Your task to perform on an android device: install app "Duolingo: language lessons" Image 0: 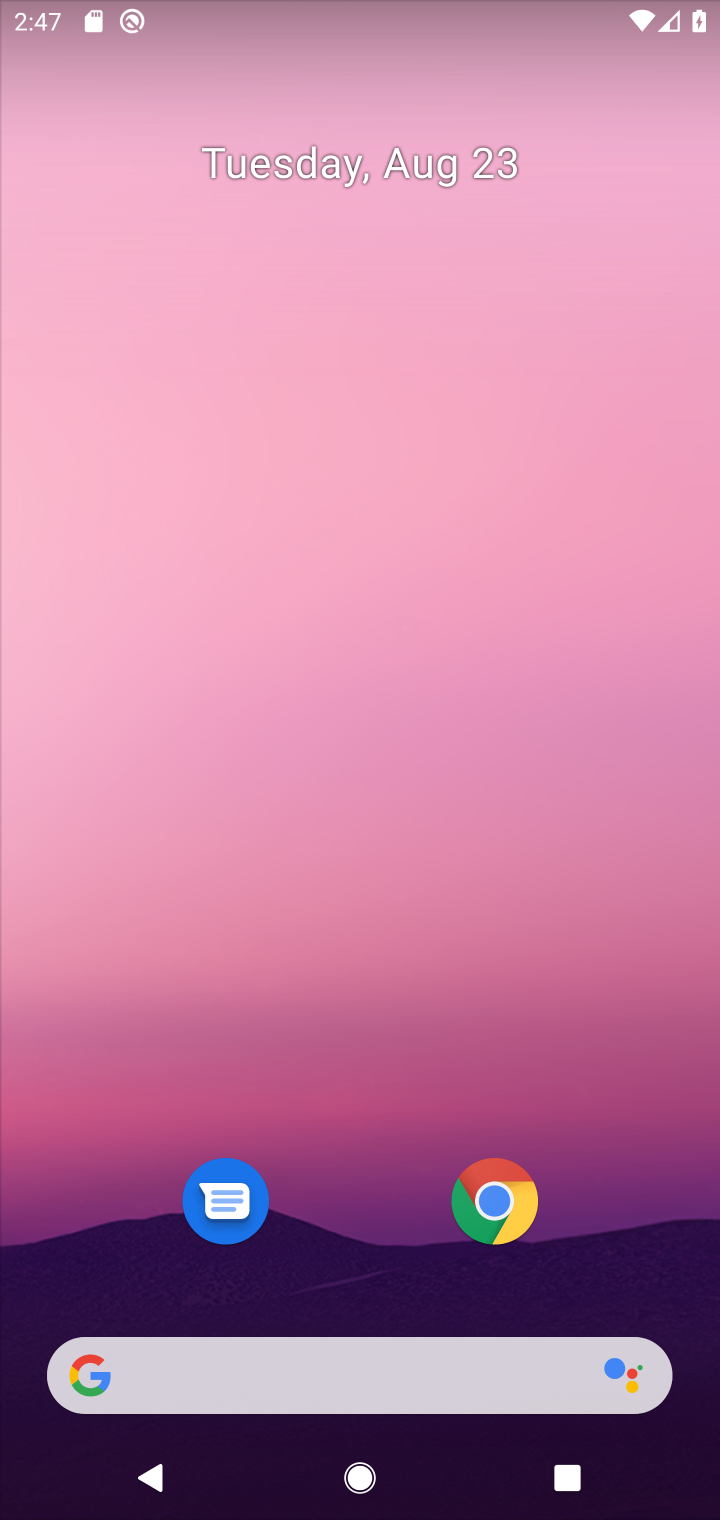
Step 0: drag from (667, 1307) to (490, 287)
Your task to perform on an android device: install app "Duolingo: language lessons" Image 1: 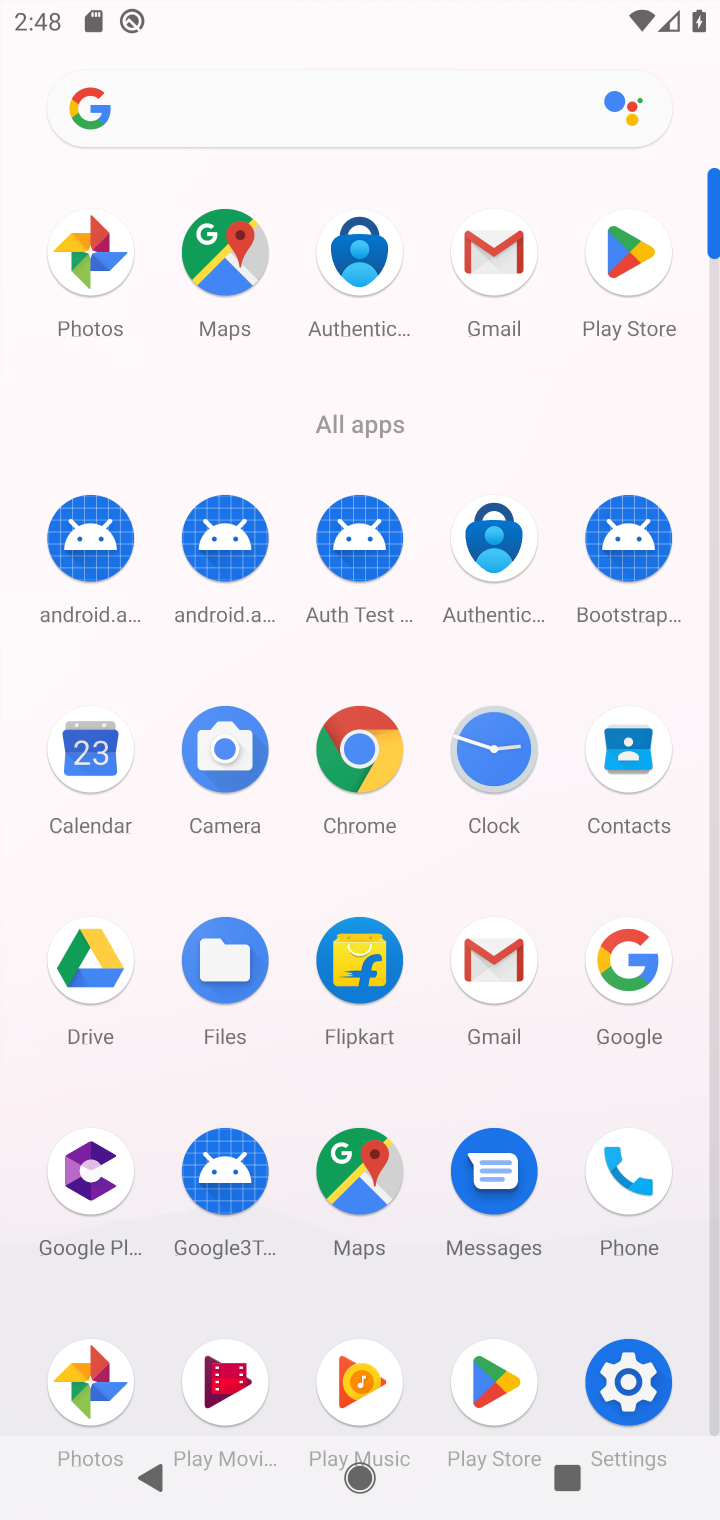
Step 1: click (493, 1377)
Your task to perform on an android device: install app "Duolingo: language lessons" Image 2: 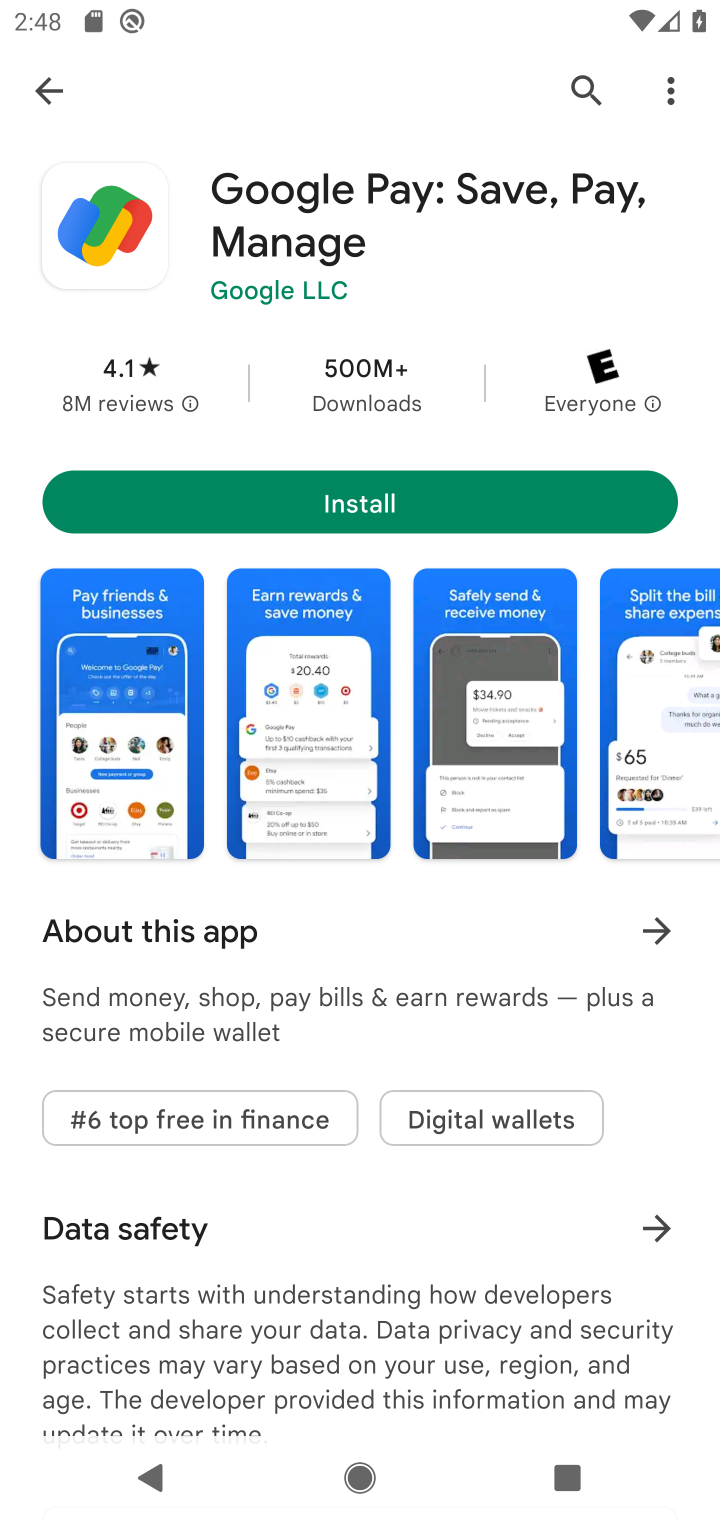
Step 2: click (580, 77)
Your task to perform on an android device: install app "Duolingo: language lessons" Image 3: 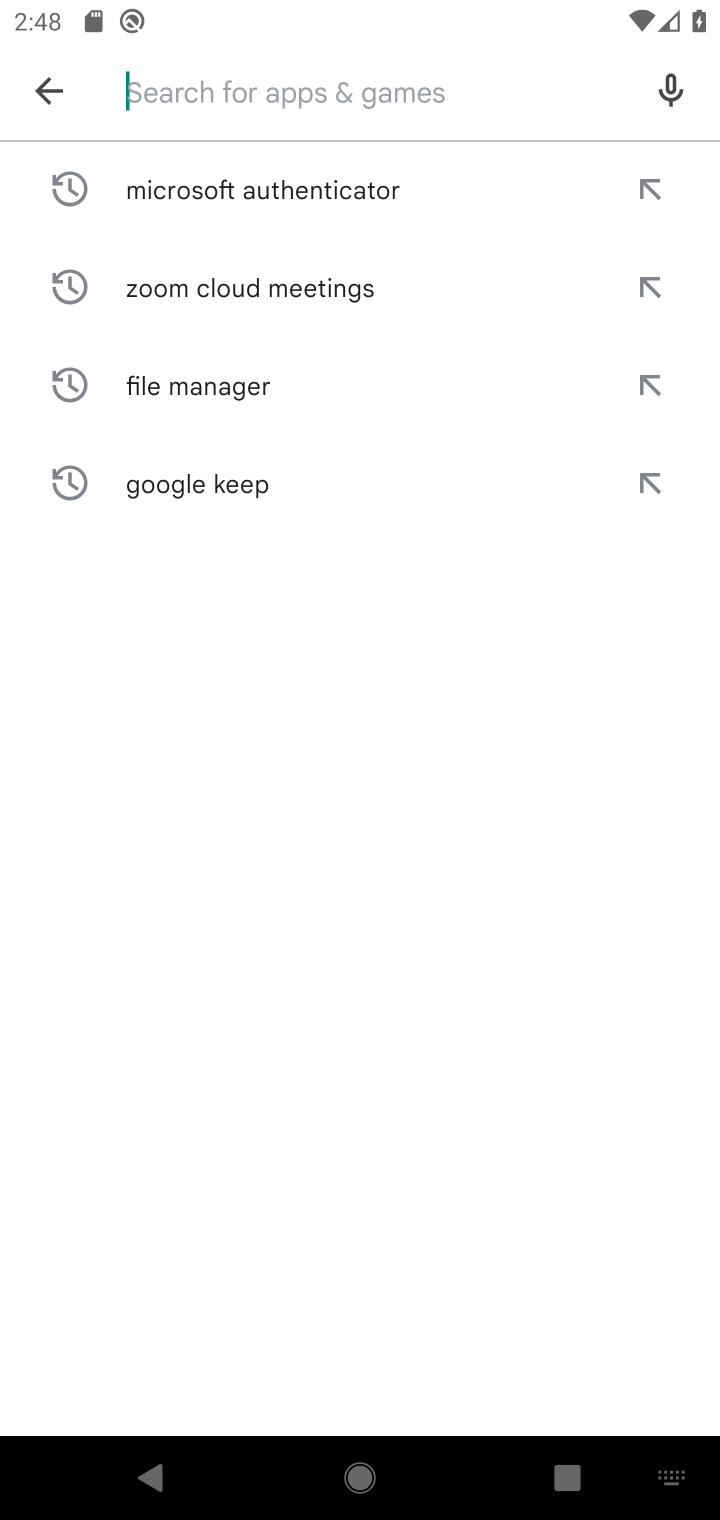
Step 3: type "Duolingo: language lessons"
Your task to perform on an android device: install app "Duolingo: language lessons" Image 4: 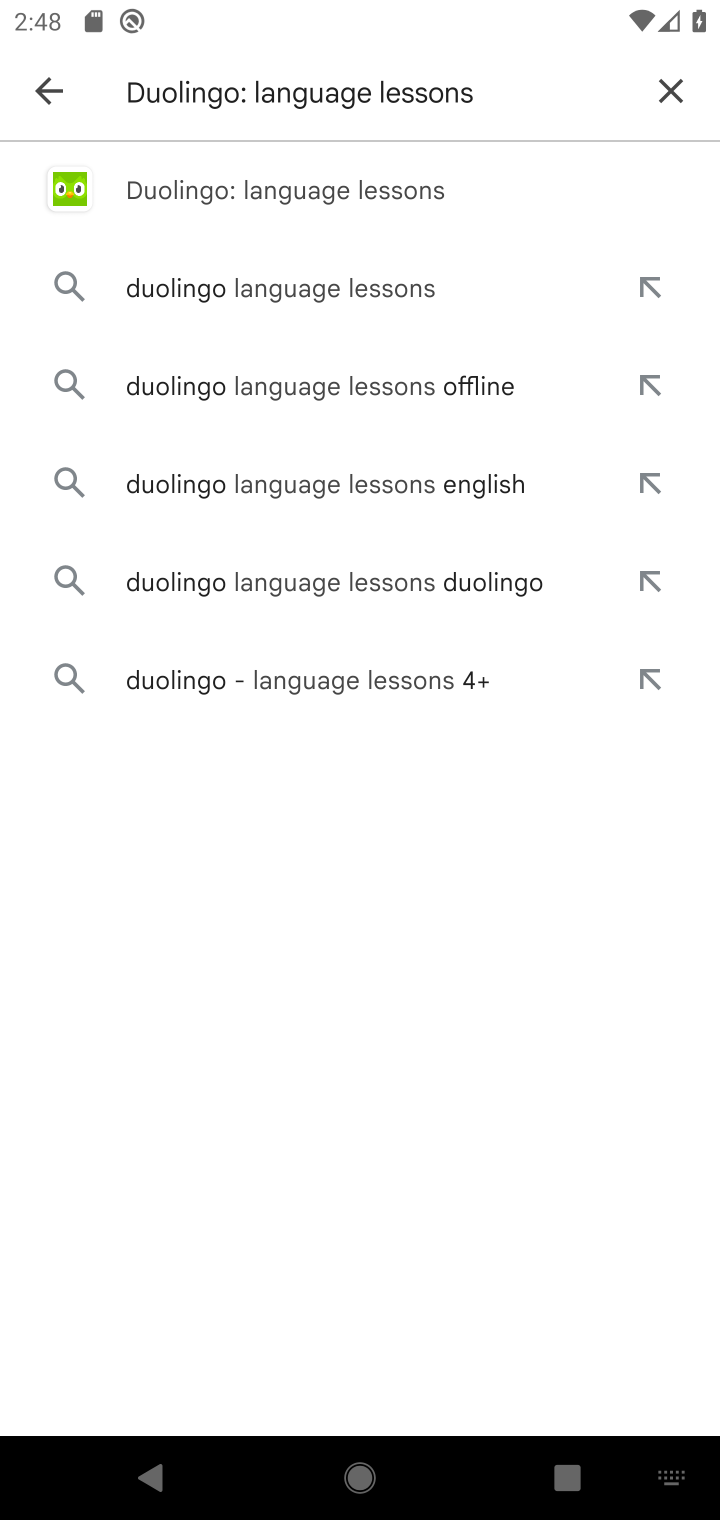
Step 4: click (275, 179)
Your task to perform on an android device: install app "Duolingo: language lessons" Image 5: 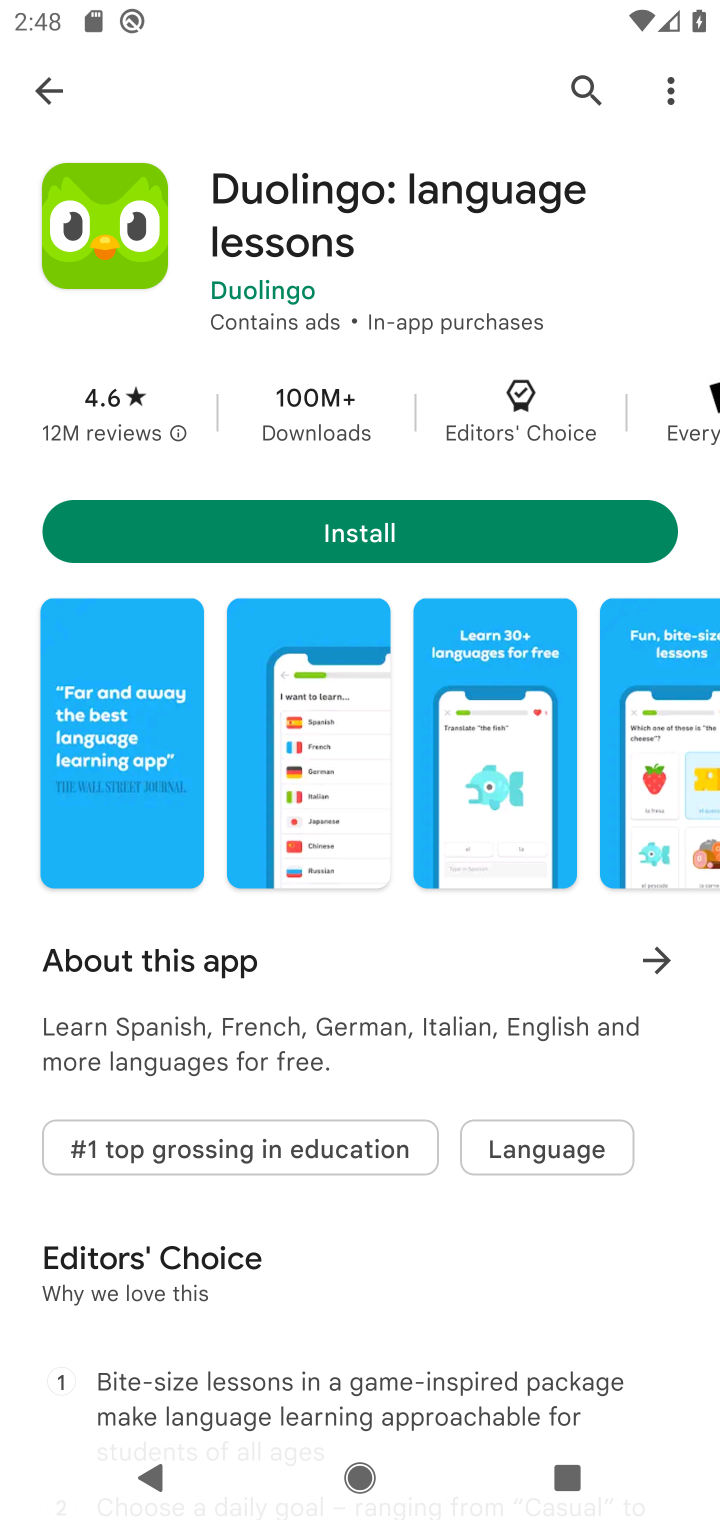
Step 5: click (352, 537)
Your task to perform on an android device: install app "Duolingo: language lessons" Image 6: 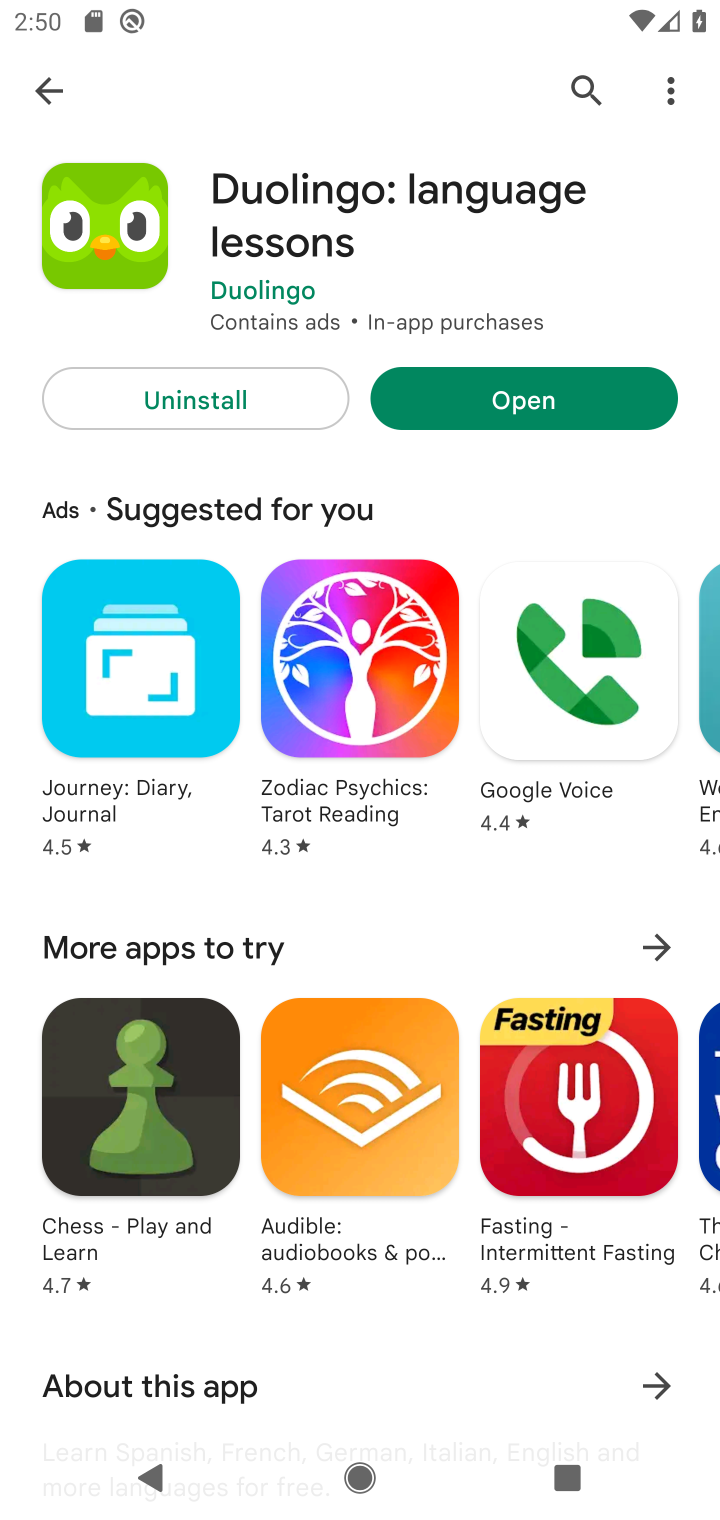
Step 6: task complete